Your task to perform on an android device: Go to Google Image 0: 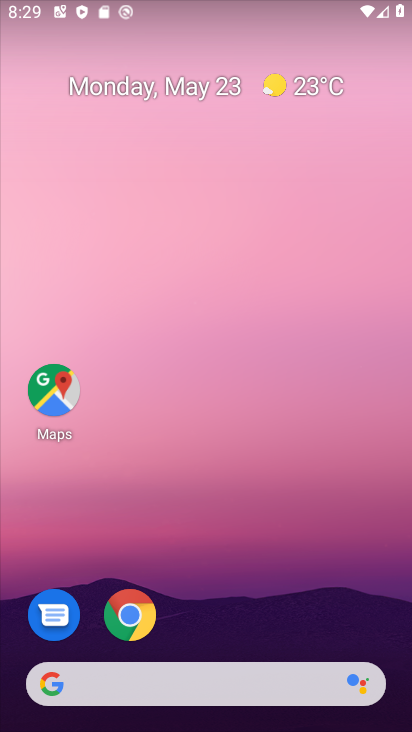
Step 0: drag from (252, 597) to (257, 25)
Your task to perform on an android device: Go to Google Image 1: 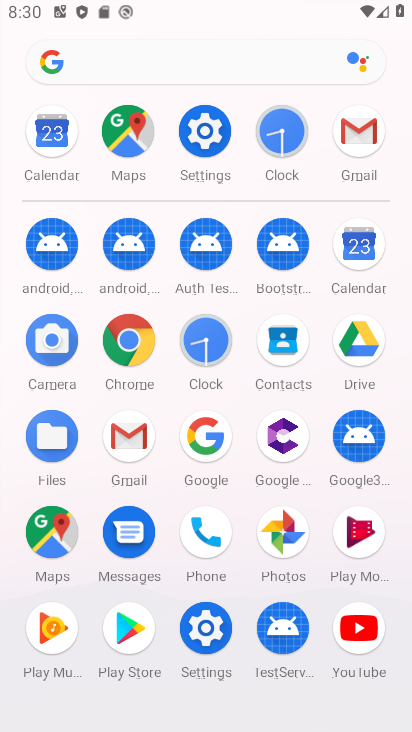
Step 1: click (201, 433)
Your task to perform on an android device: Go to Google Image 2: 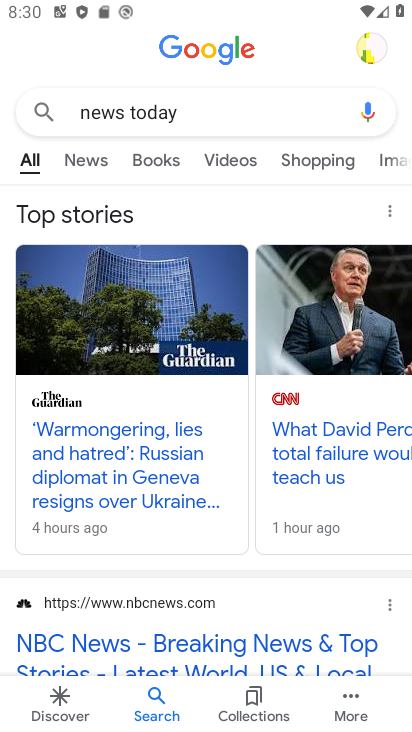
Step 2: task complete